Your task to perform on an android device: Is it going to rain today? Image 0: 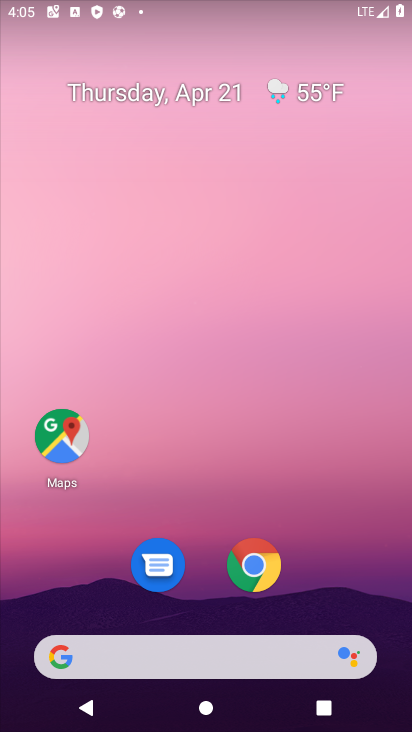
Step 0: click (299, 94)
Your task to perform on an android device: Is it going to rain today? Image 1: 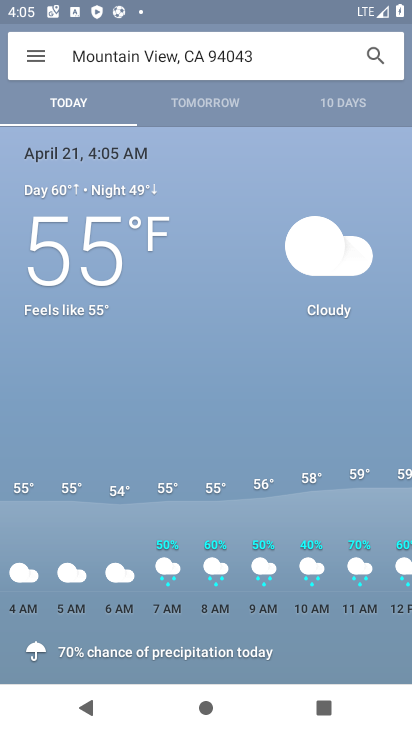
Step 1: task complete